Your task to perform on an android device: What is the recent news? Image 0: 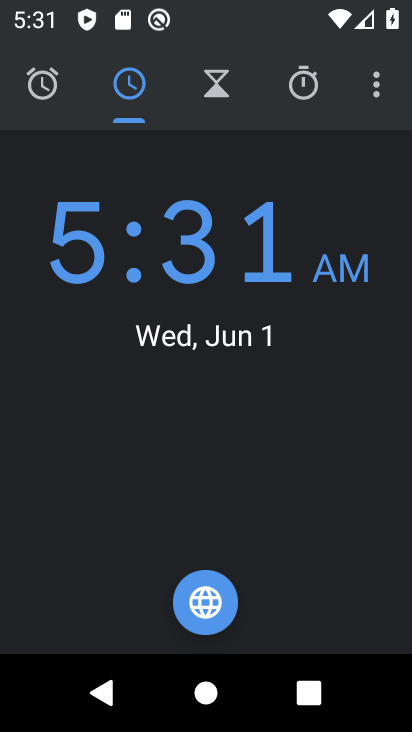
Step 0: press home button
Your task to perform on an android device: What is the recent news? Image 1: 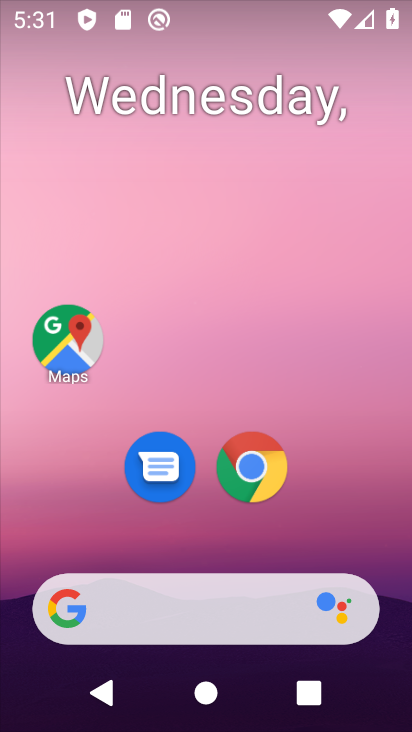
Step 1: click (254, 475)
Your task to perform on an android device: What is the recent news? Image 2: 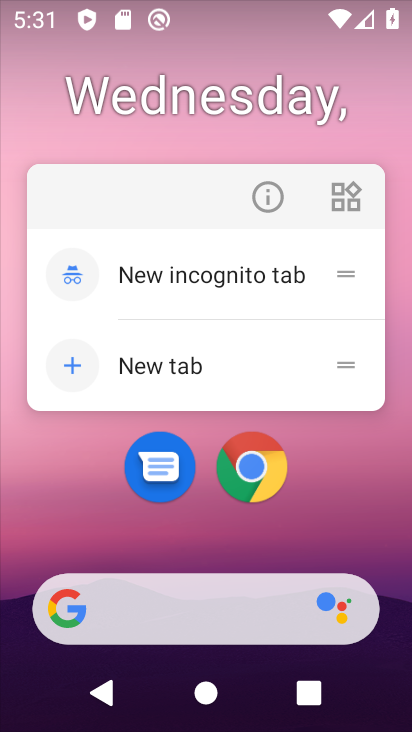
Step 2: click (254, 456)
Your task to perform on an android device: What is the recent news? Image 3: 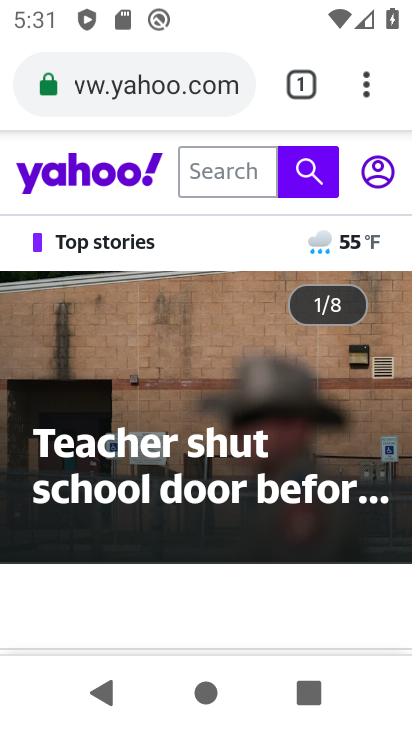
Step 3: click (95, 91)
Your task to perform on an android device: What is the recent news? Image 4: 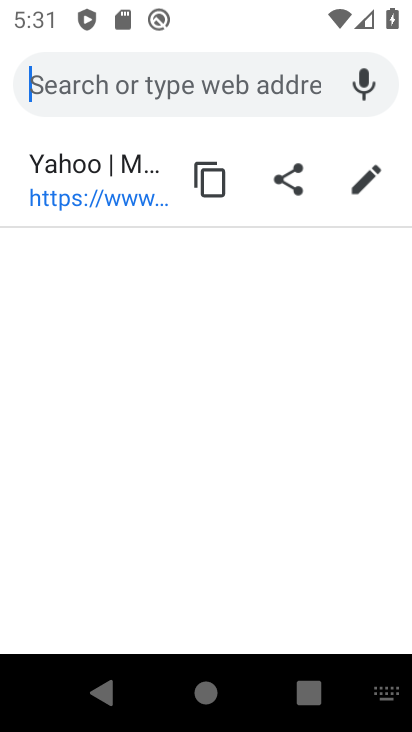
Step 4: type "What is the recent news?"
Your task to perform on an android device: What is the recent news? Image 5: 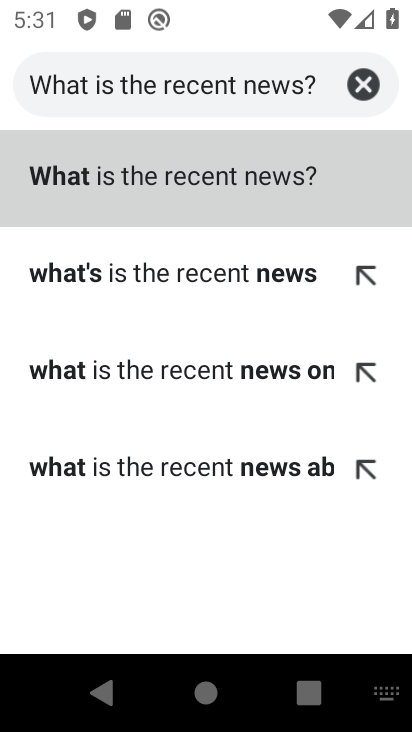
Step 5: click (192, 176)
Your task to perform on an android device: What is the recent news? Image 6: 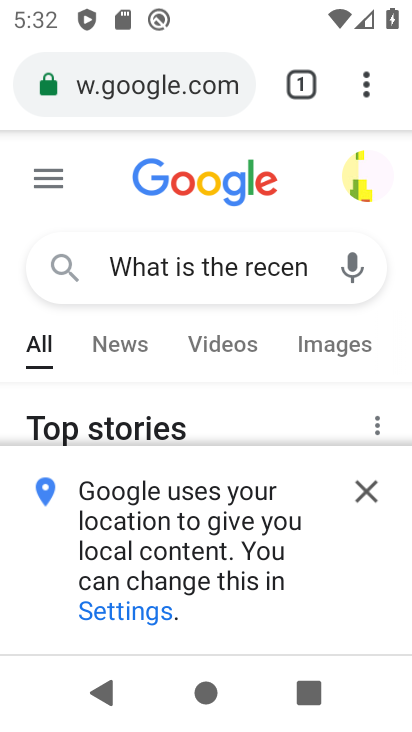
Step 6: drag from (307, 407) to (320, 186)
Your task to perform on an android device: What is the recent news? Image 7: 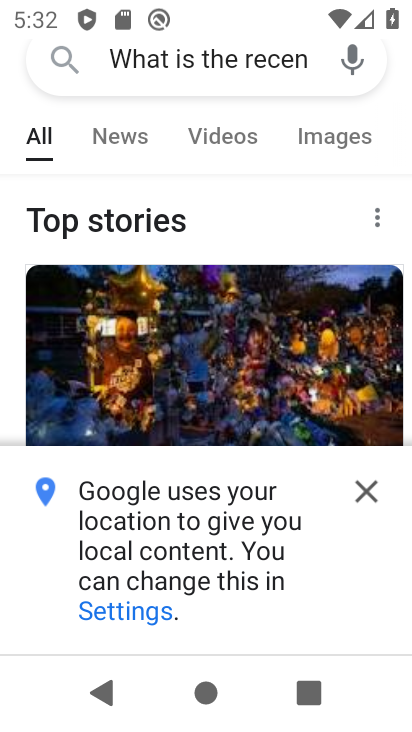
Step 7: click (110, 132)
Your task to perform on an android device: What is the recent news? Image 8: 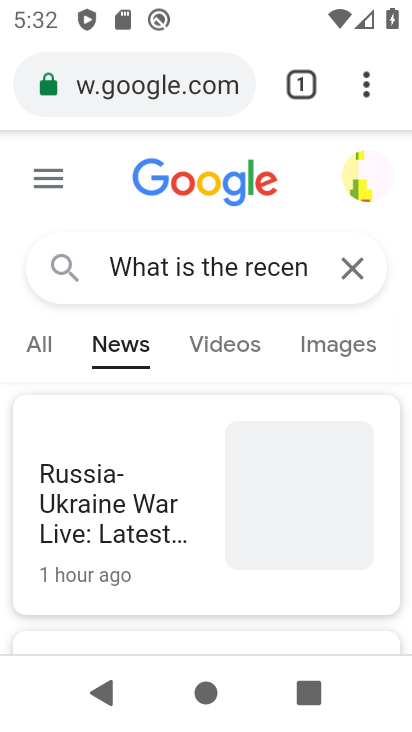
Step 8: task complete